Your task to perform on an android device: open sync settings in chrome Image 0: 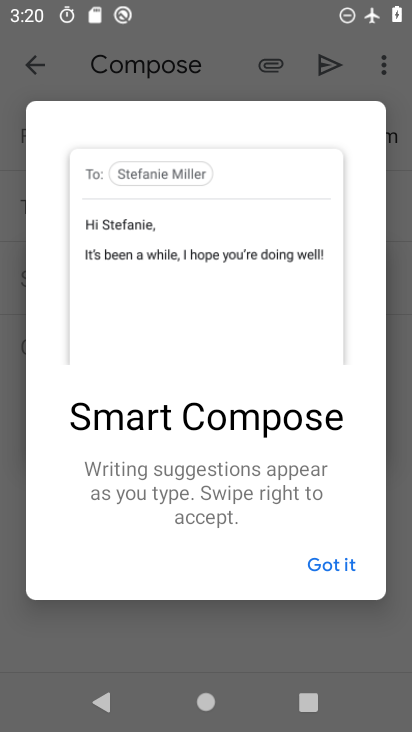
Step 0: press home button
Your task to perform on an android device: open sync settings in chrome Image 1: 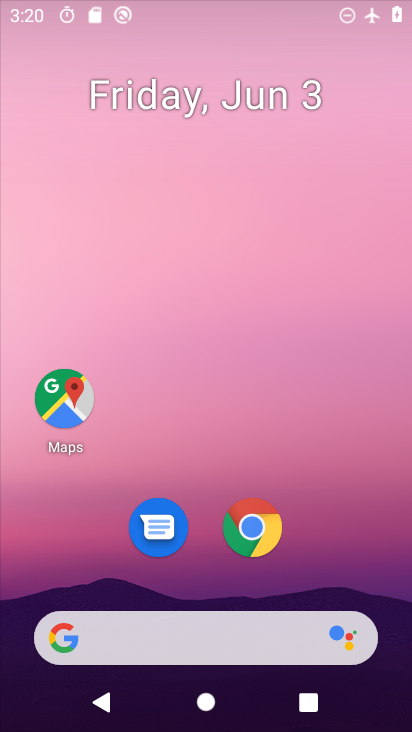
Step 1: drag from (211, 582) to (185, 207)
Your task to perform on an android device: open sync settings in chrome Image 2: 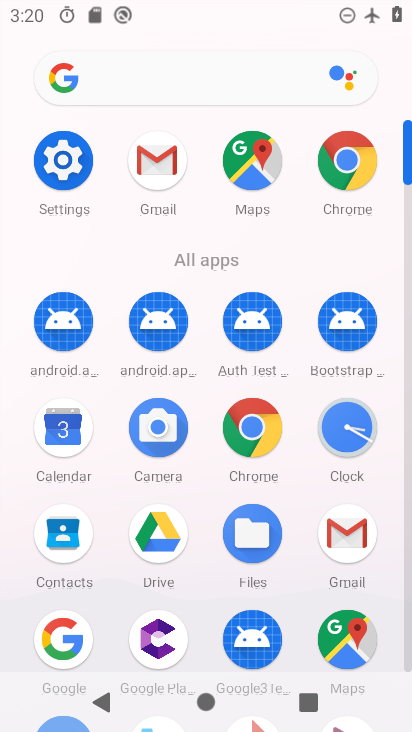
Step 2: click (347, 159)
Your task to perform on an android device: open sync settings in chrome Image 3: 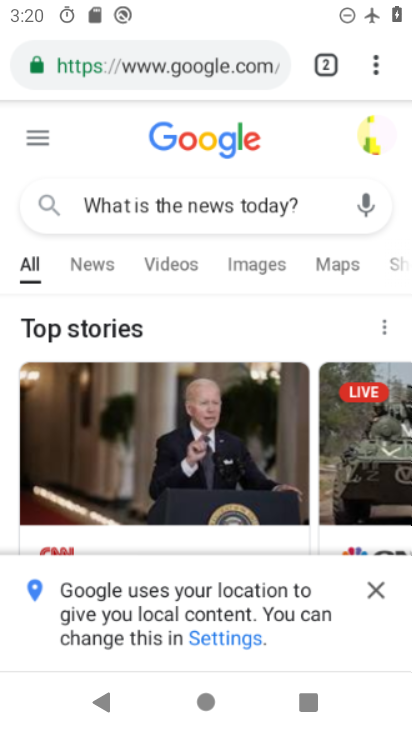
Step 3: click (373, 67)
Your task to perform on an android device: open sync settings in chrome Image 4: 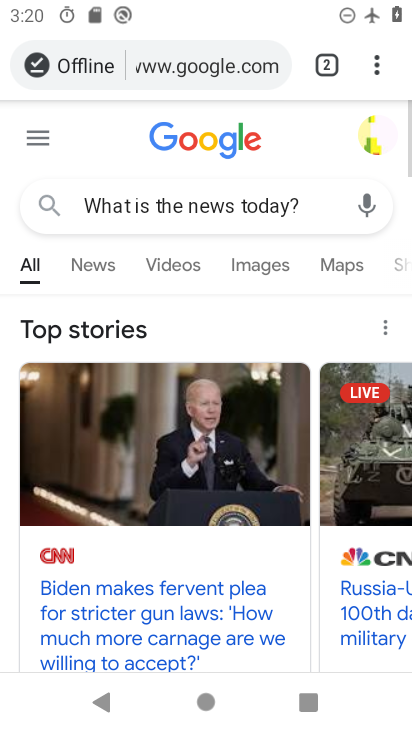
Step 4: click (373, 67)
Your task to perform on an android device: open sync settings in chrome Image 5: 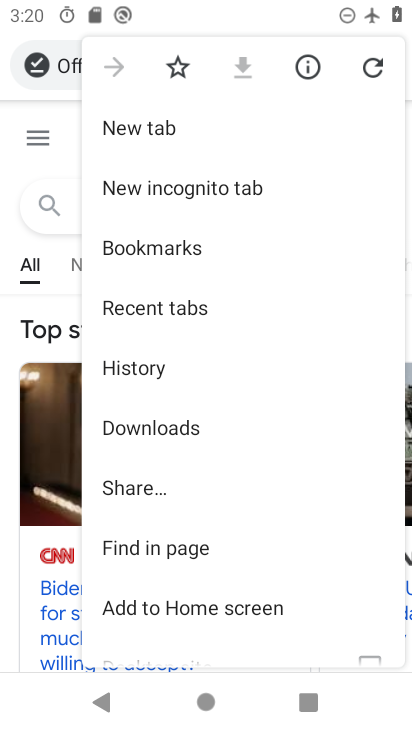
Step 5: click (164, 127)
Your task to perform on an android device: open sync settings in chrome Image 6: 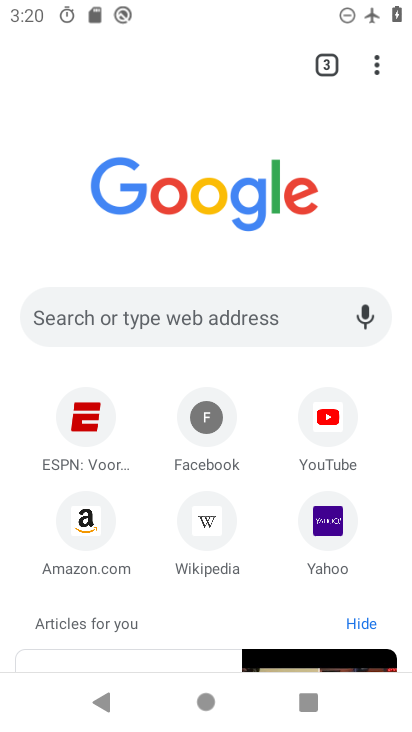
Step 6: click (374, 71)
Your task to perform on an android device: open sync settings in chrome Image 7: 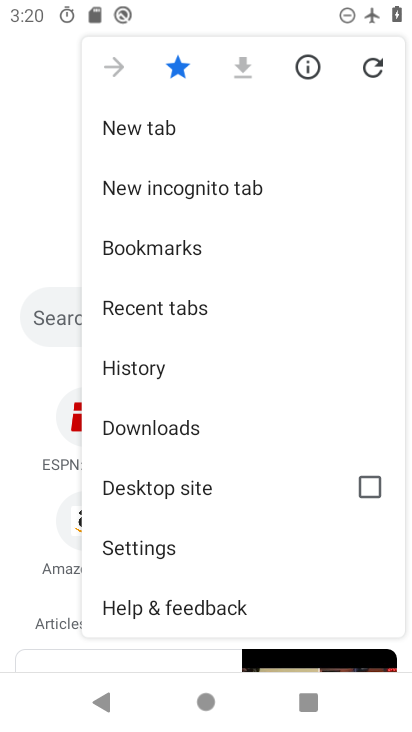
Step 7: click (185, 539)
Your task to perform on an android device: open sync settings in chrome Image 8: 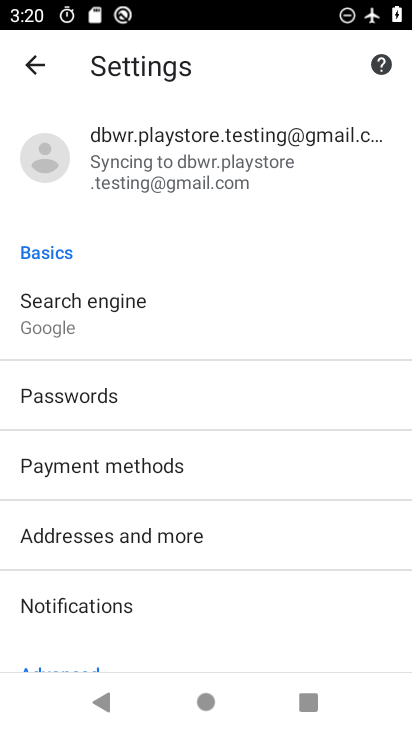
Step 8: click (159, 310)
Your task to perform on an android device: open sync settings in chrome Image 9: 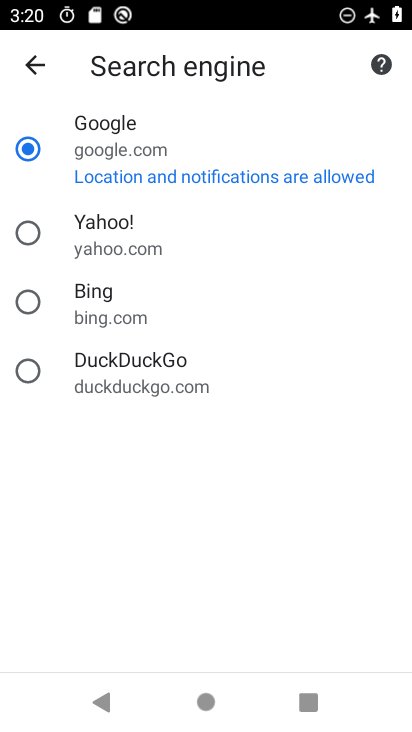
Step 9: click (30, 67)
Your task to perform on an android device: open sync settings in chrome Image 10: 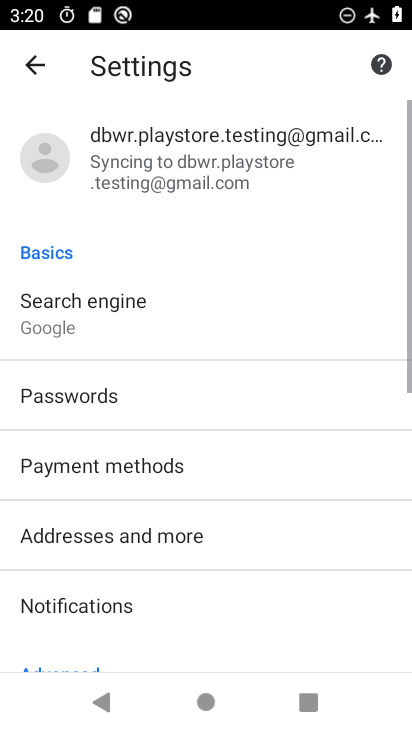
Step 10: click (165, 163)
Your task to perform on an android device: open sync settings in chrome Image 11: 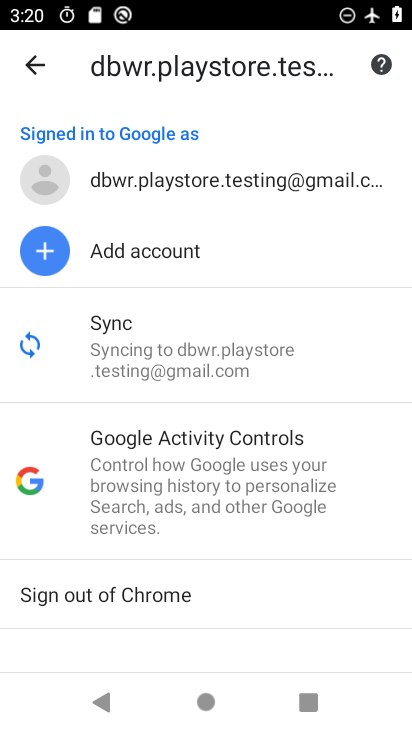
Step 11: click (169, 342)
Your task to perform on an android device: open sync settings in chrome Image 12: 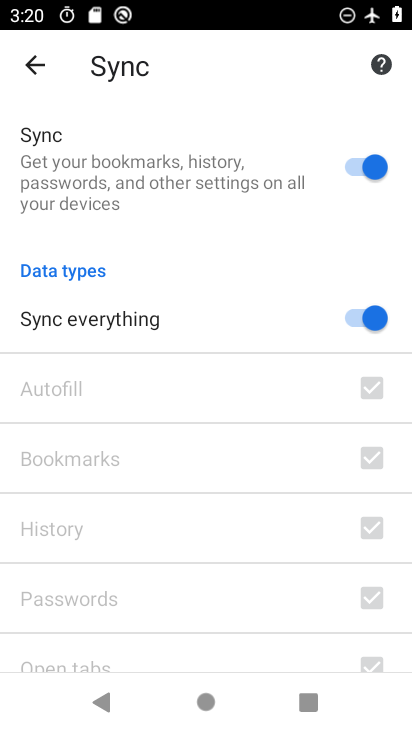
Step 12: task complete